Your task to perform on an android device: turn on showing notifications on the lock screen Image 0: 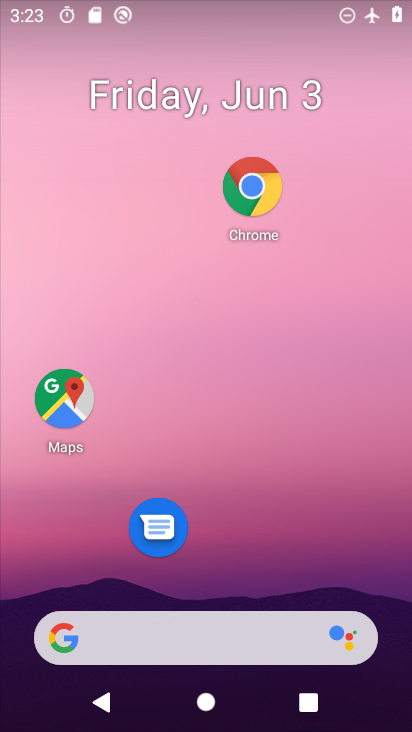
Step 0: drag from (268, 602) to (265, 177)
Your task to perform on an android device: turn on showing notifications on the lock screen Image 1: 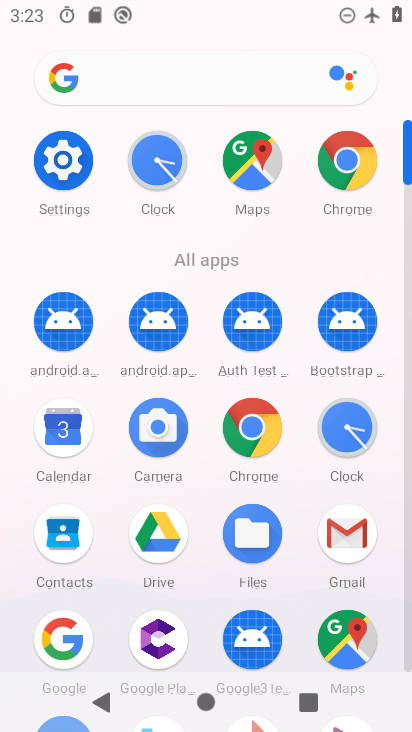
Step 1: click (53, 143)
Your task to perform on an android device: turn on showing notifications on the lock screen Image 2: 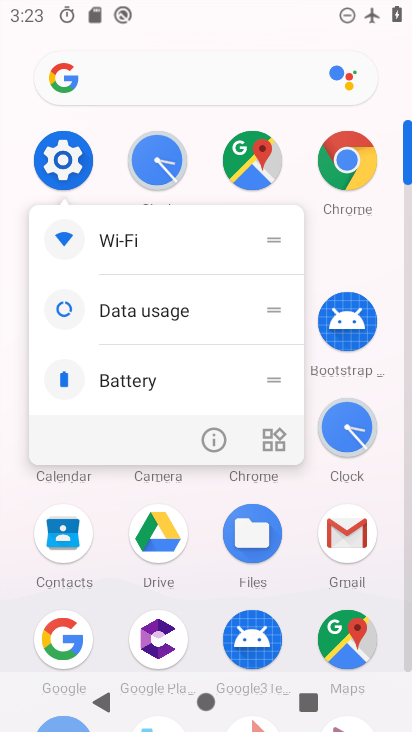
Step 2: click (53, 144)
Your task to perform on an android device: turn on showing notifications on the lock screen Image 3: 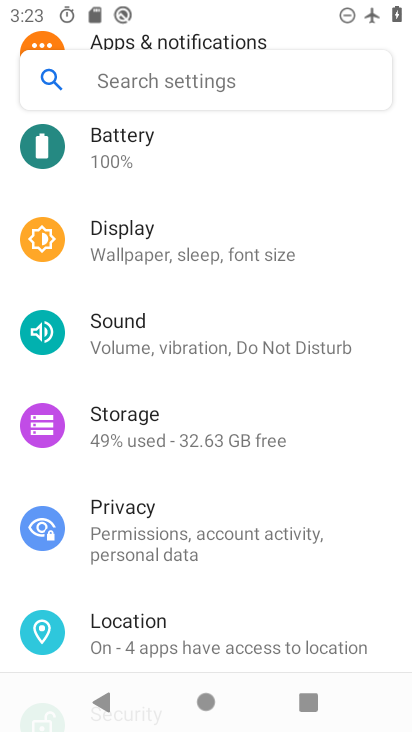
Step 3: drag from (192, 150) to (198, 556)
Your task to perform on an android device: turn on showing notifications on the lock screen Image 4: 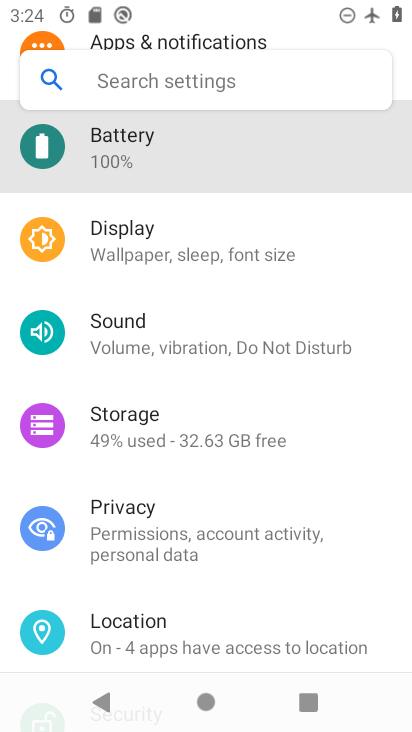
Step 4: drag from (202, 137) to (195, 382)
Your task to perform on an android device: turn on showing notifications on the lock screen Image 5: 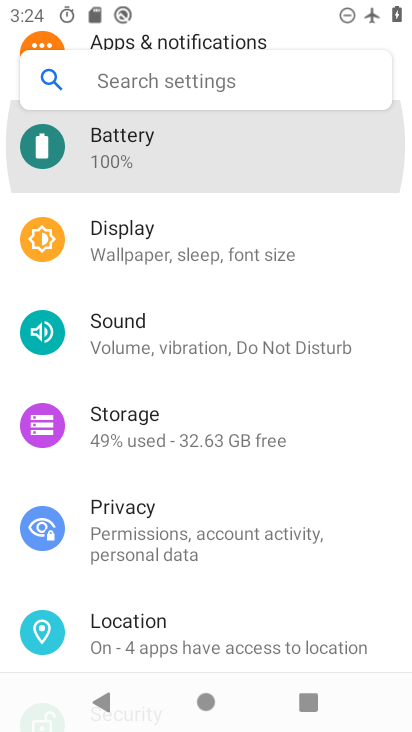
Step 5: drag from (171, 198) to (176, 453)
Your task to perform on an android device: turn on showing notifications on the lock screen Image 6: 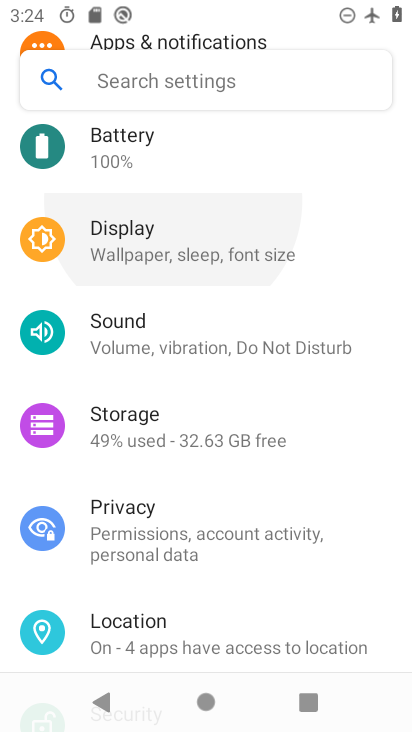
Step 6: drag from (144, 194) to (156, 431)
Your task to perform on an android device: turn on showing notifications on the lock screen Image 7: 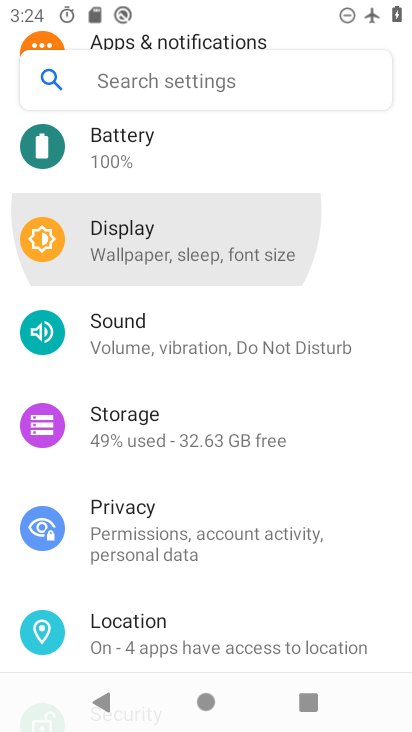
Step 7: drag from (136, 237) to (199, 436)
Your task to perform on an android device: turn on showing notifications on the lock screen Image 8: 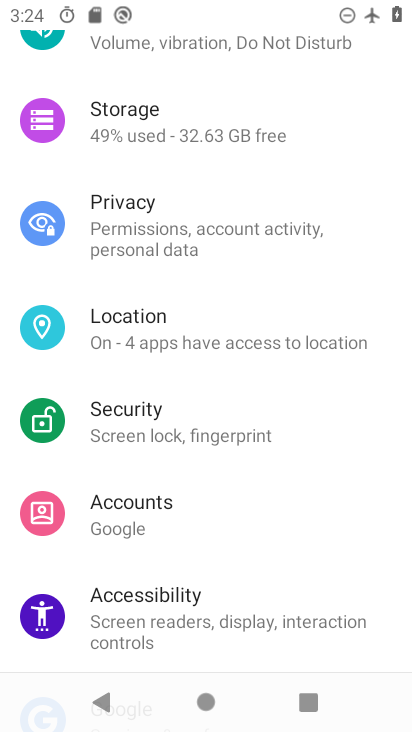
Step 8: drag from (203, 164) to (258, 416)
Your task to perform on an android device: turn on showing notifications on the lock screen Image 9: 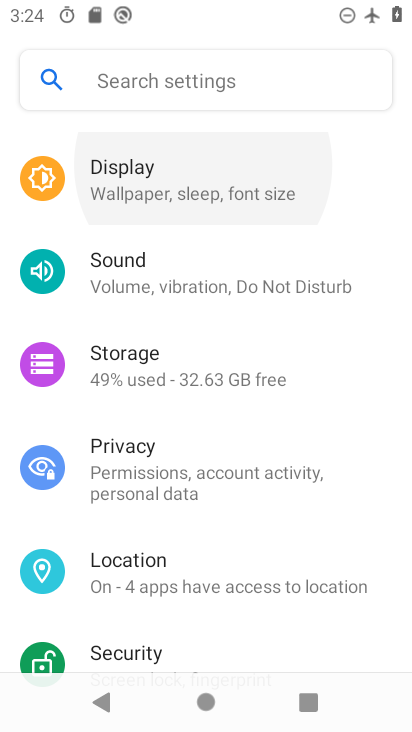
Step 9: drag from (241, 257) to (238, 477)
Your task to perform on an android device: turn on showing notifications on the lock screen Image 10: 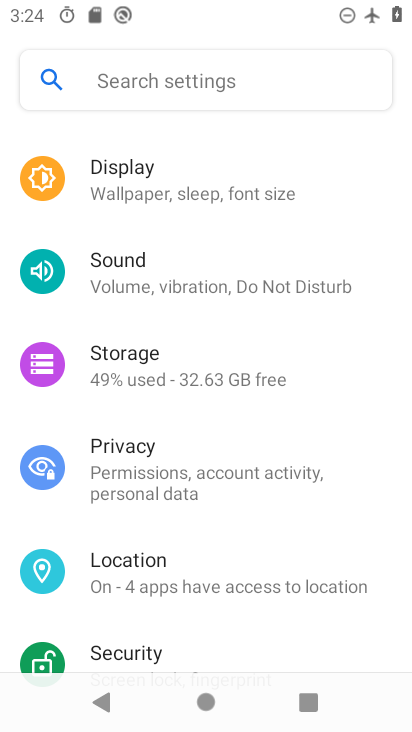
Step 10: drag from (216, 161) to (161, 480)
Your task to perform on an android device: turn on showing notifications on the lock screen Image 11: 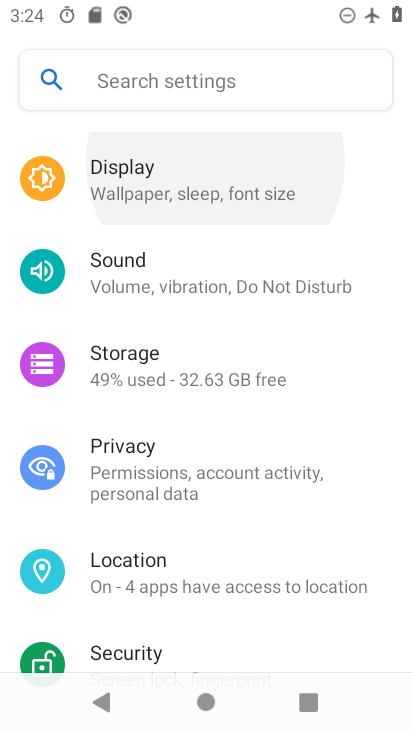
Step 11: drag from (173, 243) to (197, 470)
Your task to perform on an android device: turn on showing notifications on the lock screen Image 12: 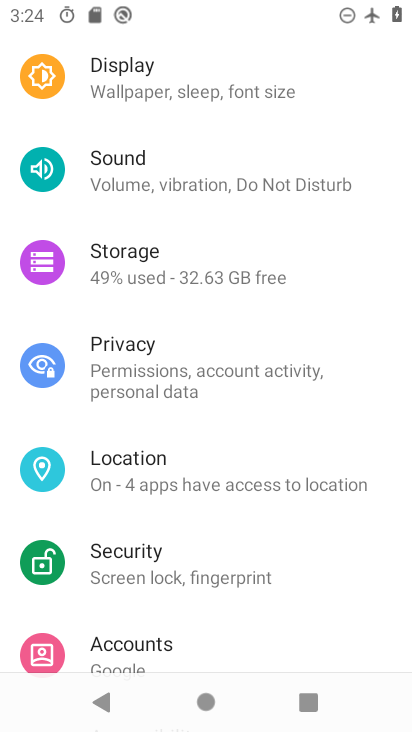
Step 12: drag from (151, 204) to (169, 441)
Your task to perform on an android device: turn on showing notifications on the lock screen Image 13: 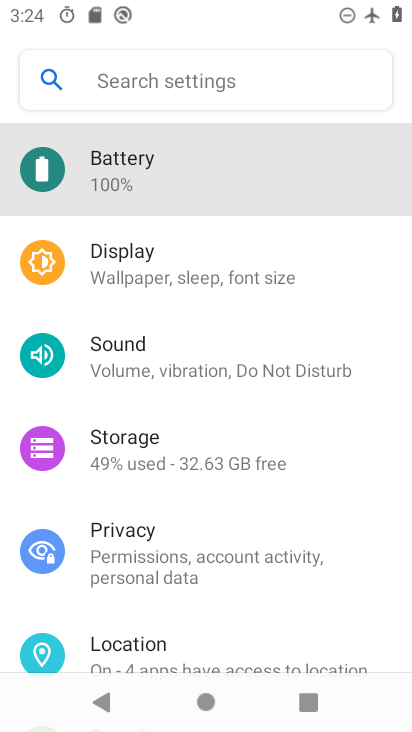
Step 13: drag from (149, 205) to (173, 527)
Your task to perform on an android device: turn on showing notifications on the lock screen Image 14: 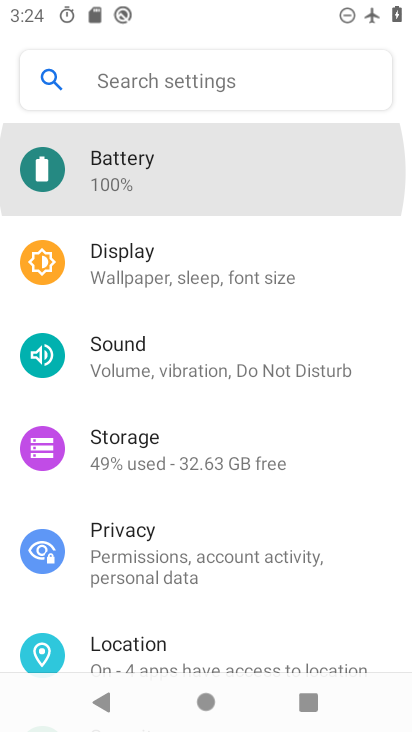
Step 14: drag from (163, 194) to (204, 506)
Your task to perform on an android device: turn on showing notifications on the lock screen Image 15: 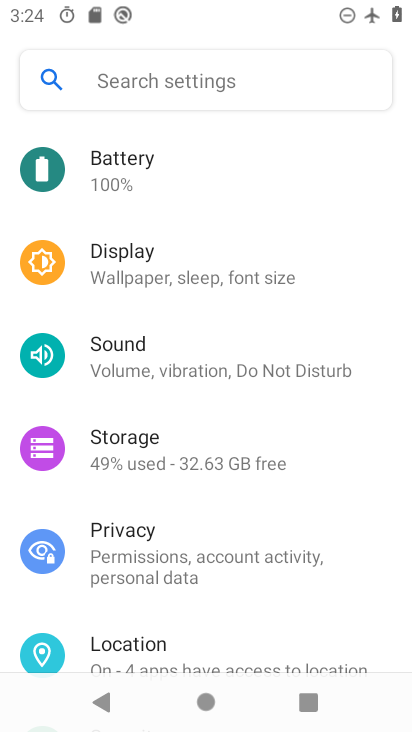
Step 15: drag from (191, 215) to (220, 467)
Your task to perform on an android device: turn on showing notifications on the lock screen Image 16: 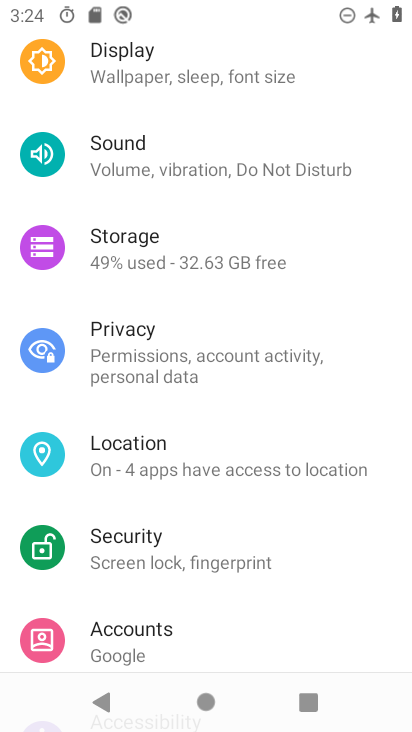
Step 16: drag from (216, 192) to (271, 408)
Your task to perform on an android device: turn on showing notifications on the lock screen Image 17: 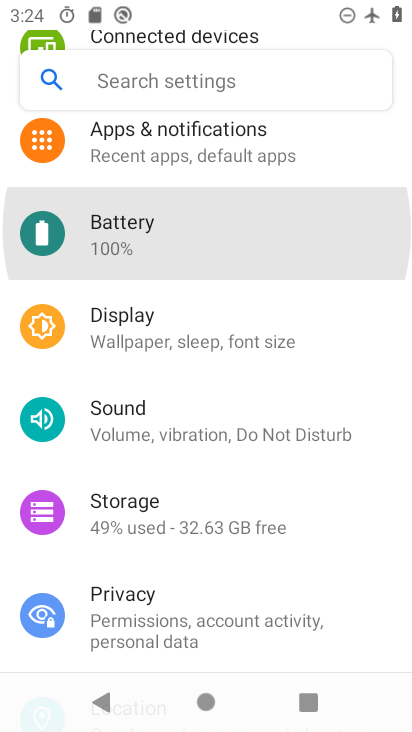
Step 17: drag from (267, 188) to (179, 449)
Your task to perform on an android device: turn on showing notifications on the lock screen Image 18: 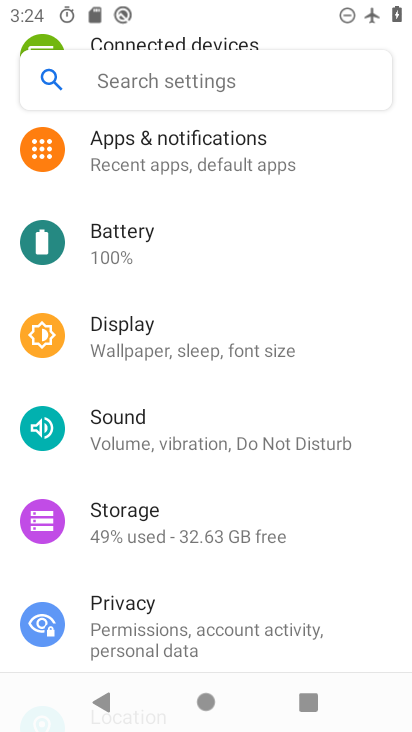
Step 18: click (188, 146)
Your task to perform on an android device: turn on showing notifications on the lock screen Image 19: 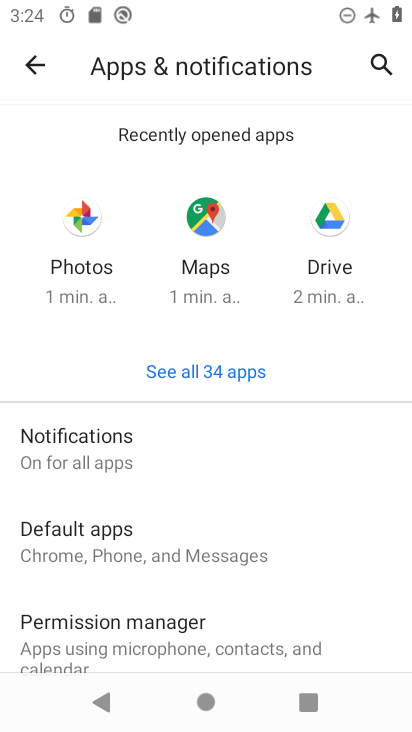
Step 19: drag from (162, 586) to (189, 207)
Your task to perform on an android device: turn on showing notifications on the lock screen Image 20: 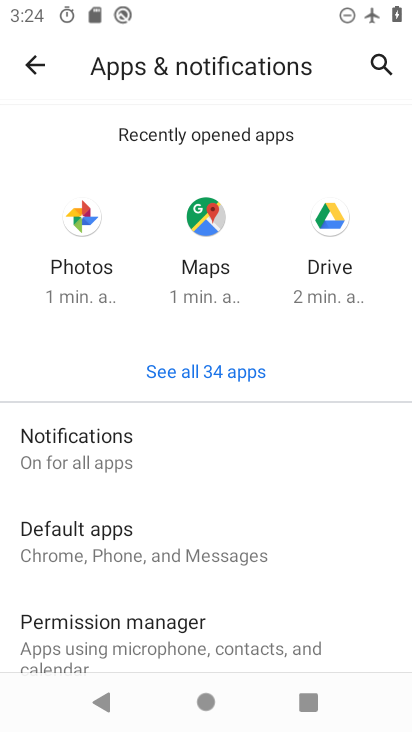
Step 20: click (90, 438)
Your task to perform on an android device: turn on showing notifications on the lock screen Image 21: 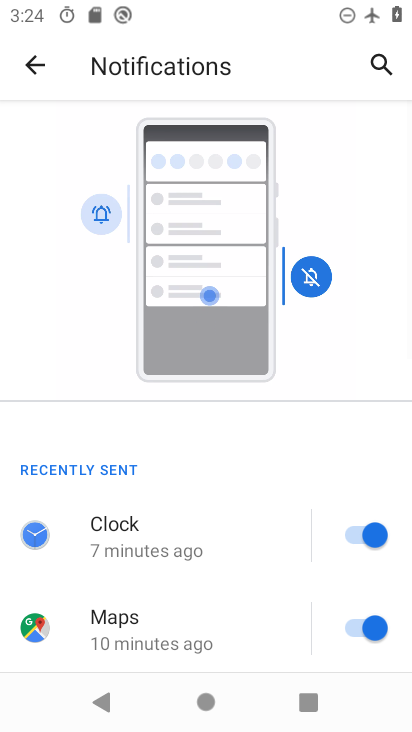
Step 21: drag from (194, 595) to (208, 281)
Your task to perform on an android device: turn on showing notifications on the lock screen Image 22: 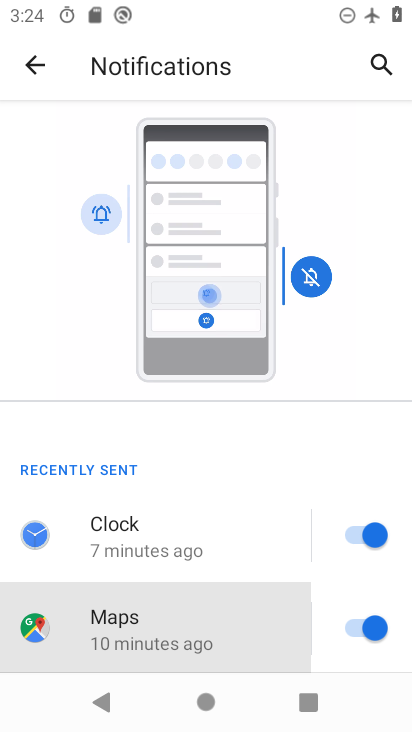
Step 22: drag from (262, 561) to (283, 229)
Your task to perform on an android device: turn on showing notifications on the lock screen Image 23: 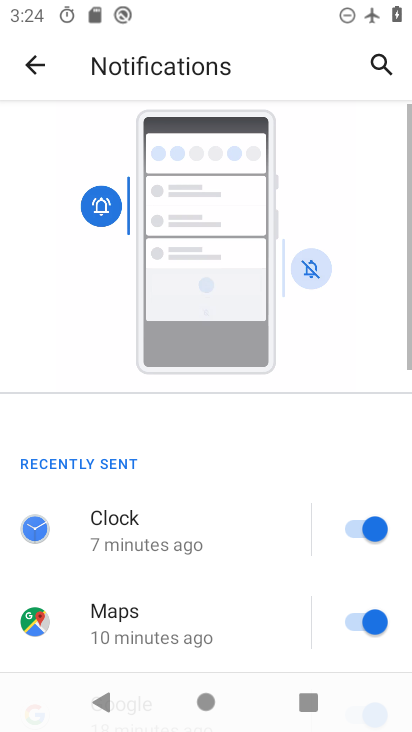
Step 23: drag from (261, 527) to (286, 256)
Your task to perform on an android device: turn on showing notifications on the lock screen Image 24: 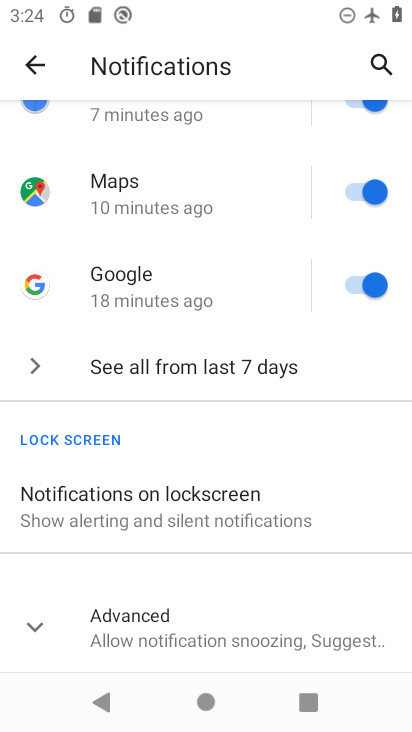
Step 24: click (203, 504)
Your task to perform on an android device: turn on showing notifications on the lock screen Image 25: 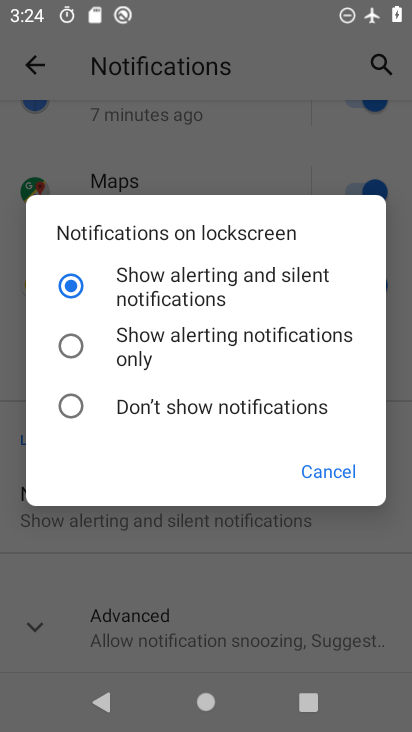
Step 25: task complete